Your task to perform on an android device: find which apps use the phone's location Image 0: 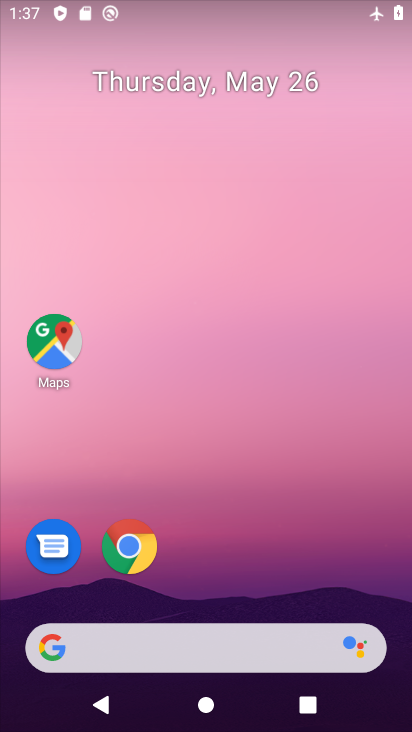
Step 0: drag from (195, 558) to (215, 6)
Your task to perform on an android device: find which apps use the phone's location Image 1: 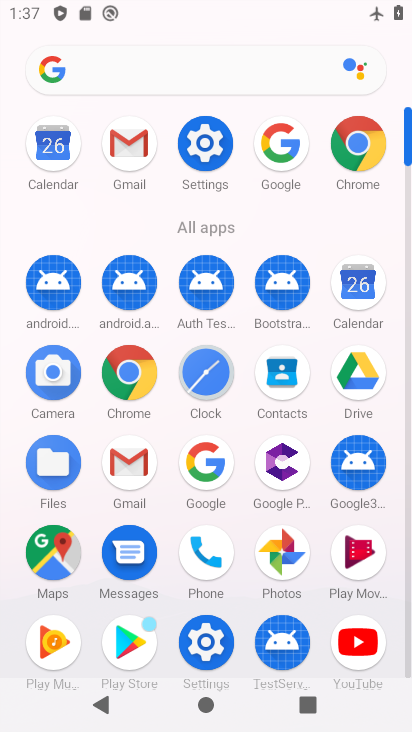
Step 1: click (209, 146)
Your task to perform on an android device: find which apps use the phone's location Image 2: 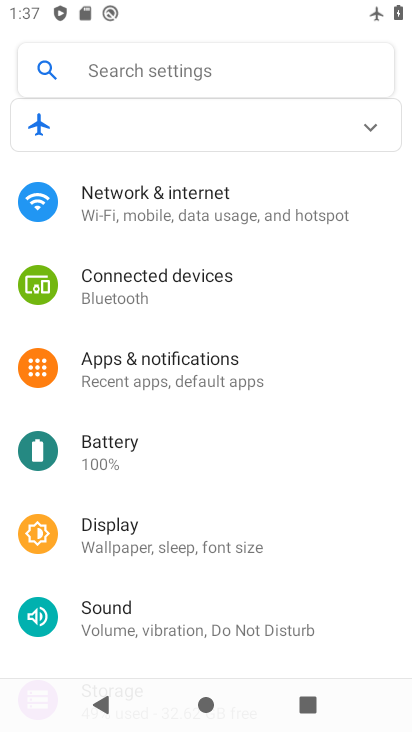
Step 2: drag from (205, 599) to (258, 245)
Your task to perform on an android device: find which apps use the phone's location Image 3: 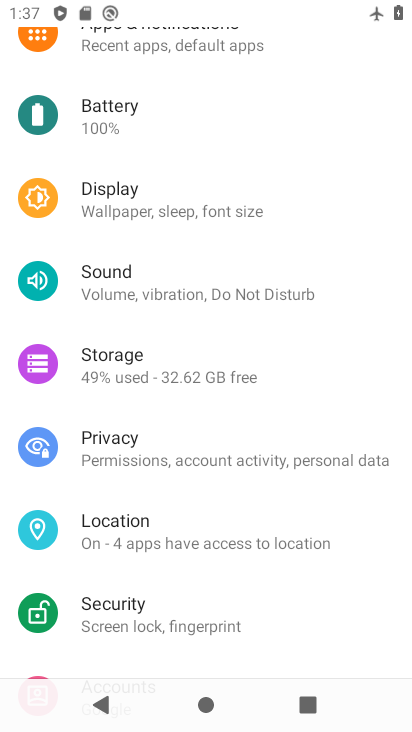
Step 3: click (152, 533)
Your task to perform on an android device: find which apps use the phone's location Image 4: 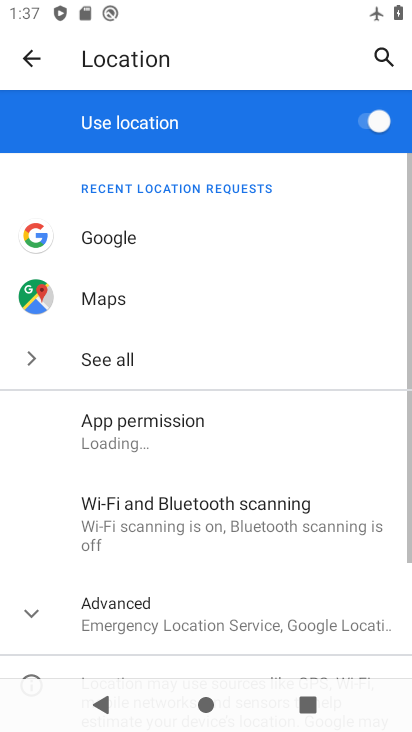
Step 4: drag from (238, 585) to (250, 184)
Your task to perform on an android device: find which apps use the phone's location Image 5: 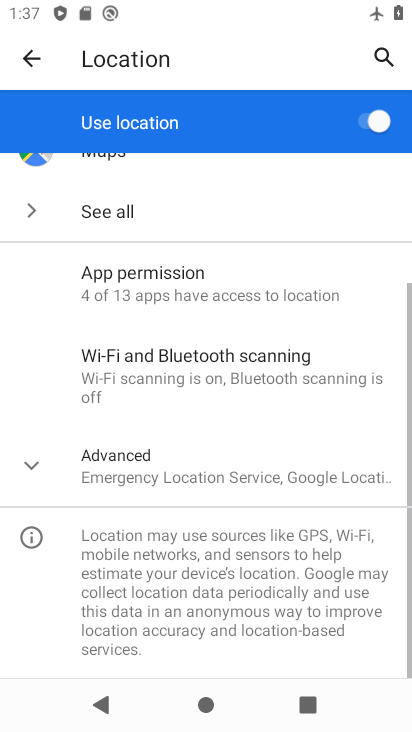
Step 5: drag from (169, 397) to (172, 493)
Your task to perform on an android device: find which apps use the phone's location Image 6: 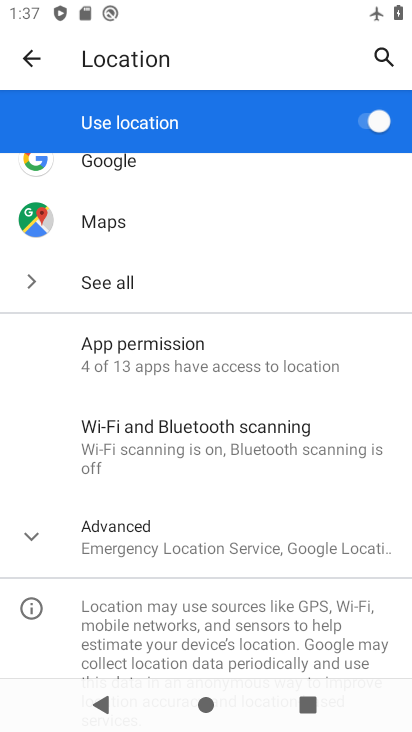
Step 6: click (146, 350)
Your task to perform on an android device: find which apps use the phone's location Image 7: 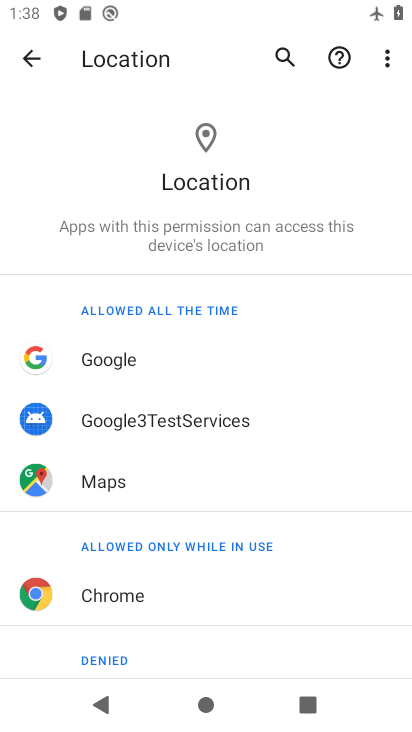
Step 7: task complete